Your task to perform on an android device: Search for pizza restaurants on Maps Image 0: 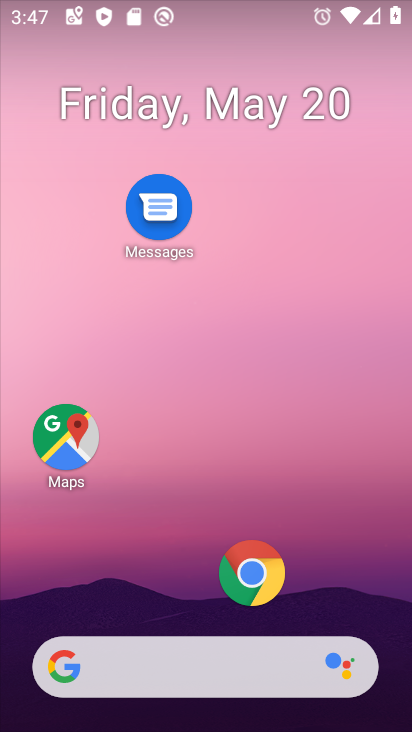
Step 0: drag from (210, 619) to (137, 0)
Your task to perform on an android device: Search for pizza restaurants on Maps Image 1: 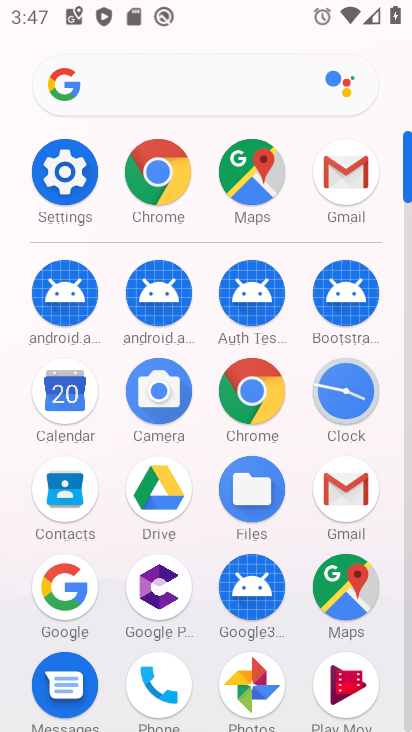
Step 1: click (342, 570)
Your task to perform on an android device: Search for pizza restaurants on Maps Image 2: 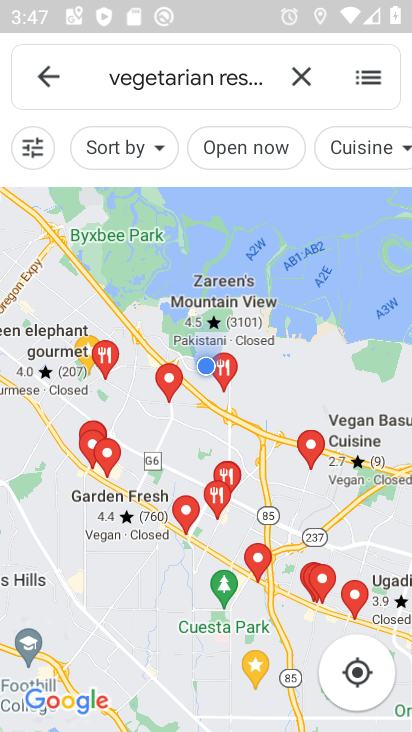
Step 2: click (207, 70)
Your task to perform on an android device: Search for pizza restaurants on Maps Image 3: 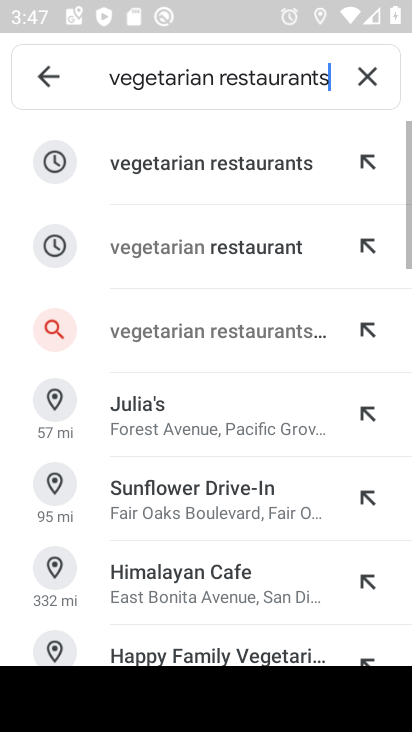
Step 3: click (365, 81)
Your task to perform on an android device: Search for pizza restaurants on Maps Image 4: 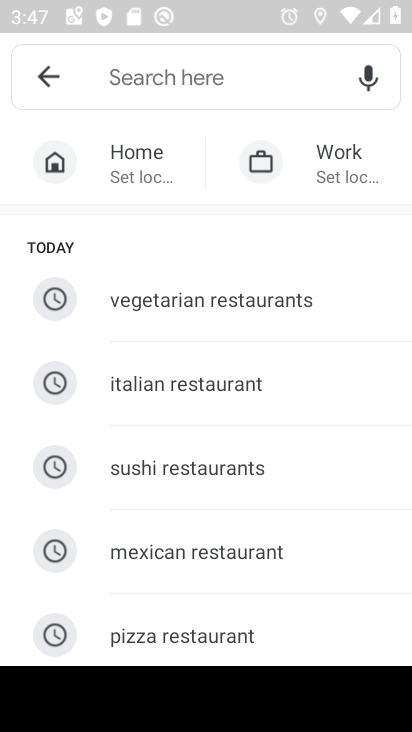
Step 4: click (171, 624)
Your task to perform on an android device: Search for pizza restaurants on Maps Image 5: 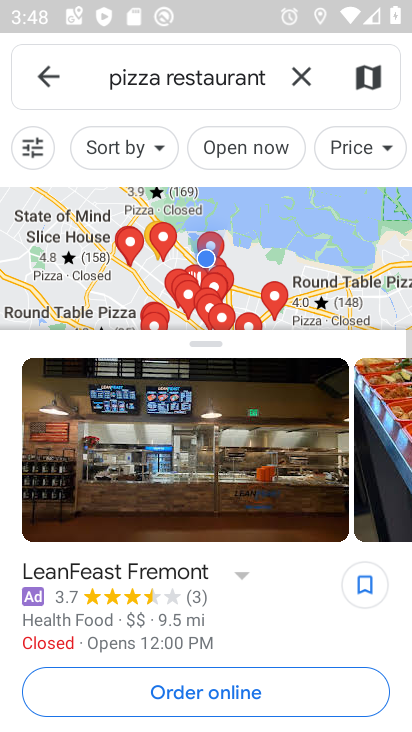
Step 5: task complete